Your task to perform on an android device: toggle translation in the chrome app Image 0: 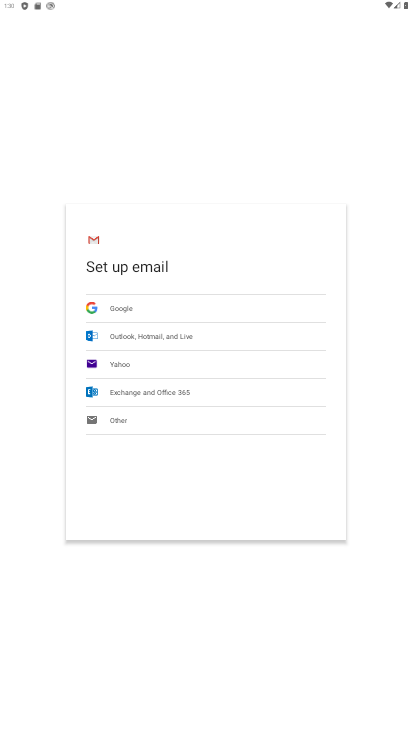
Step 0: press home button
Your task to perform on an android device: toggle translation in the chrome app Image 1: 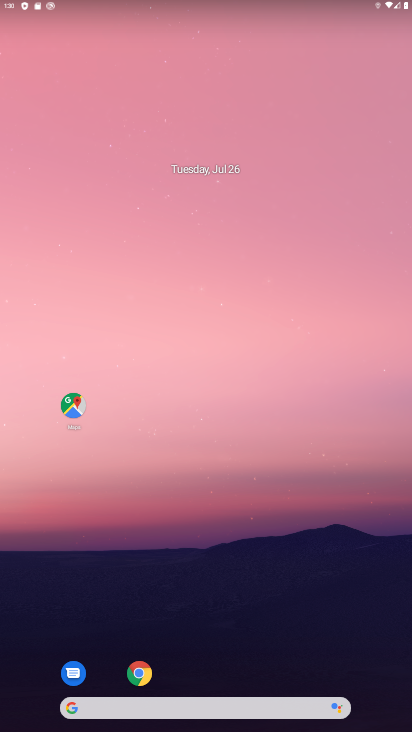
Step 1: click (144, 671)
Your task to perform on an android device: toggle translation in the chrome app Image 2: 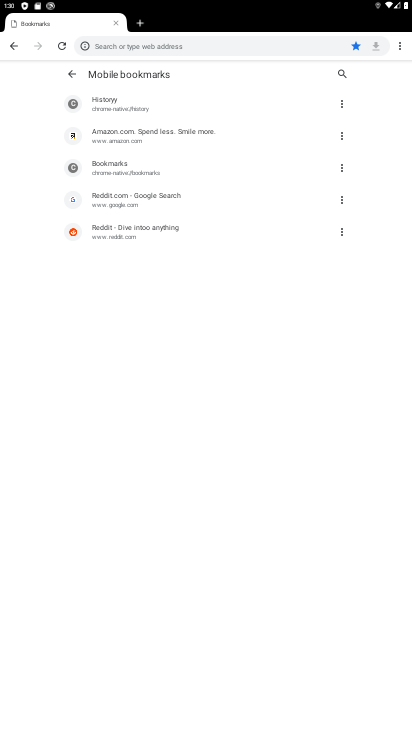
Step 2: click (400, 47)
Your task to perform on an android device: toggle translation in the chrome app Image 3: 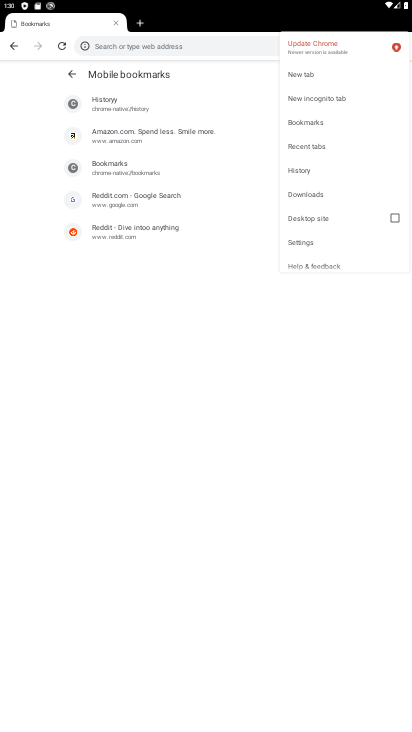
Step 3: click (315, 241)
Your task to perform on an android device: toggle translation in the chrome app Image 4: 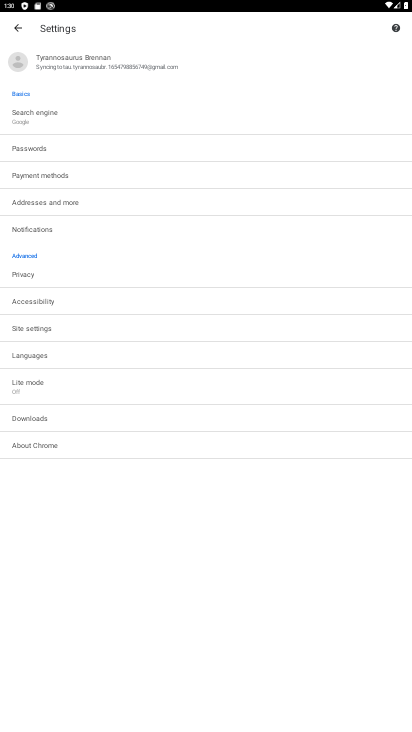
Step 4: click (73, 358)
Your task to perform on an android device: toggle translation in the chrome app Image 5: 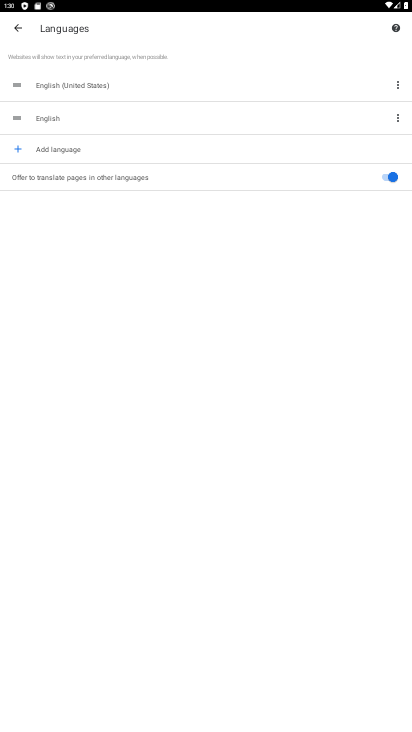
Step 5: click (390, 180)
Your task to perform on an android device: toggle translation in the chrome app Image 6: 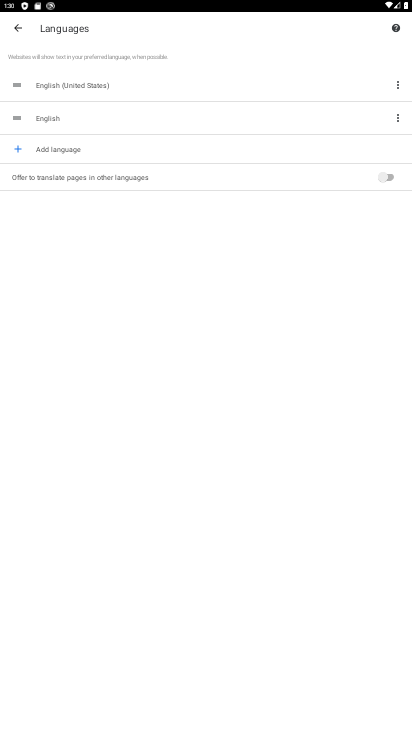
Step 6: task complete